Your task to perform on an android device: turn on notifications settings in the gmail app Image 0: 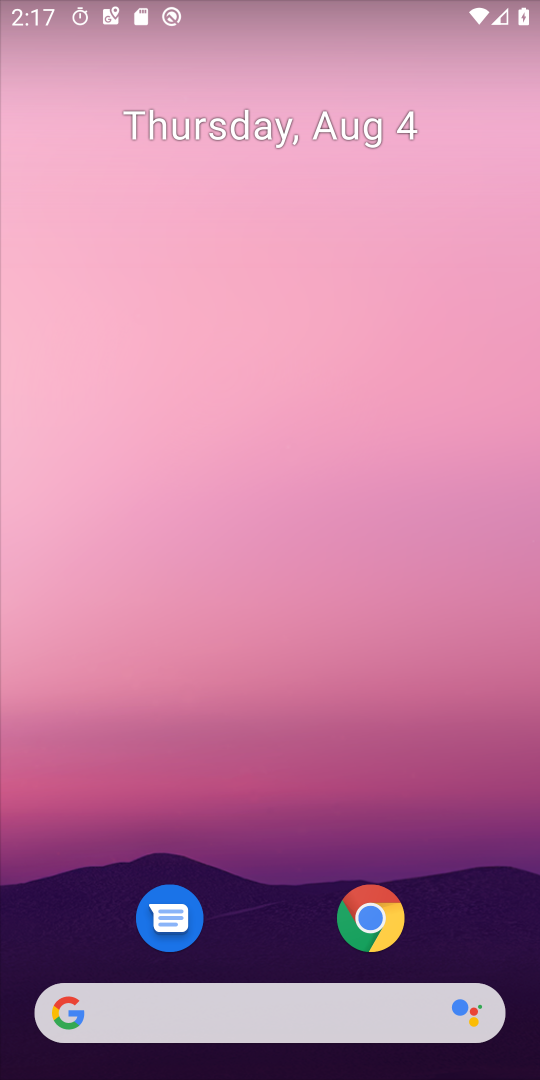
Step 0: drag from (315, 624) to (315, 196)
Your task to perform on an android device: turn on notifications settings in the gmail app Image 1: 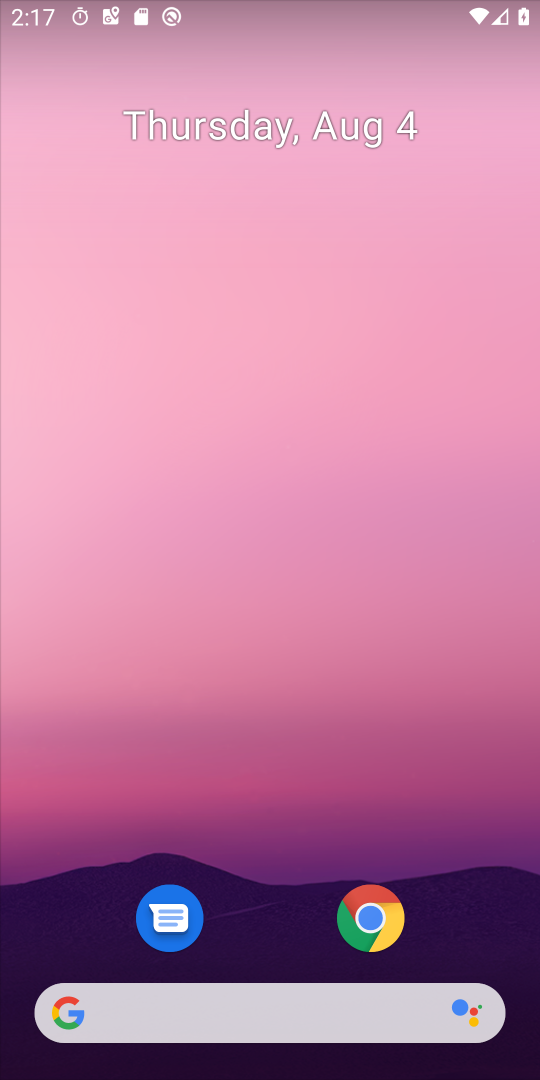
Step 1: drag from (282, 909) to (319, 301)
Your task to perform on an android device: turn on notifications settings in the gmail app Image 2: 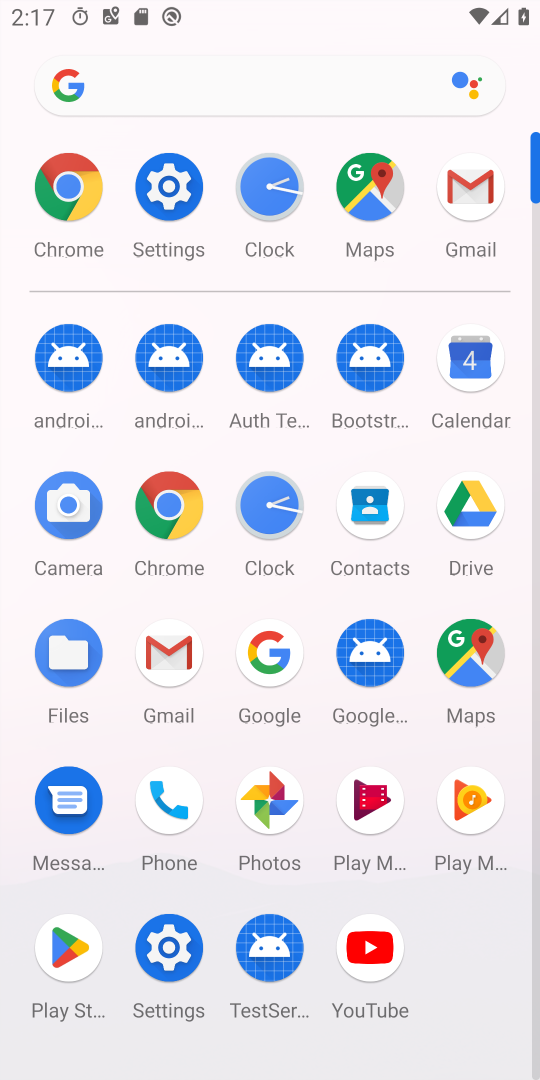
Step 2: click (442, 187)
Your task to perform on an android device: turn on notifications settings in the gmail app Image 3: 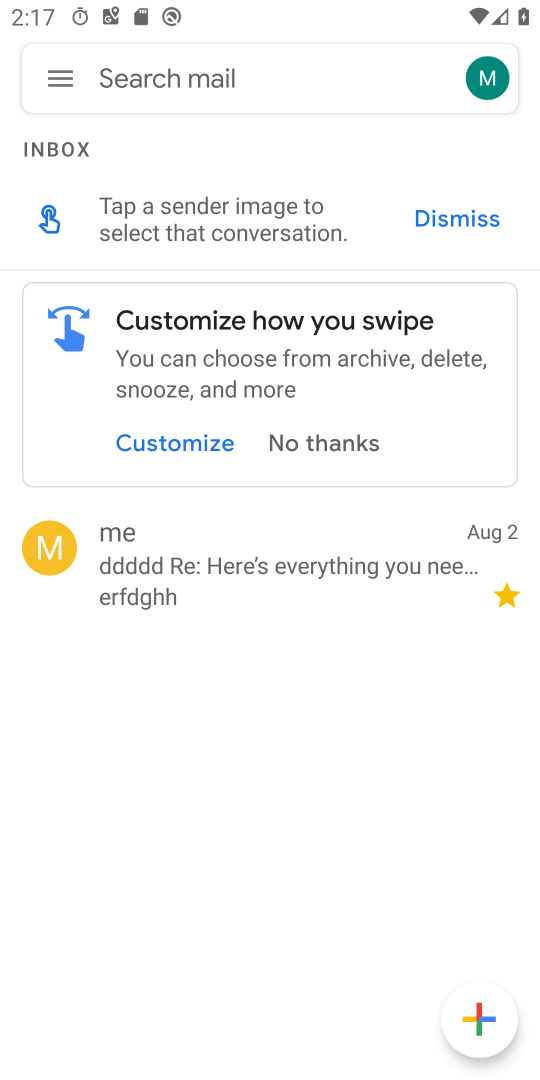
Step 3: click (76, 70)
Your task to perform on an android device: turn on notifications settings in the gmail app Image 4: 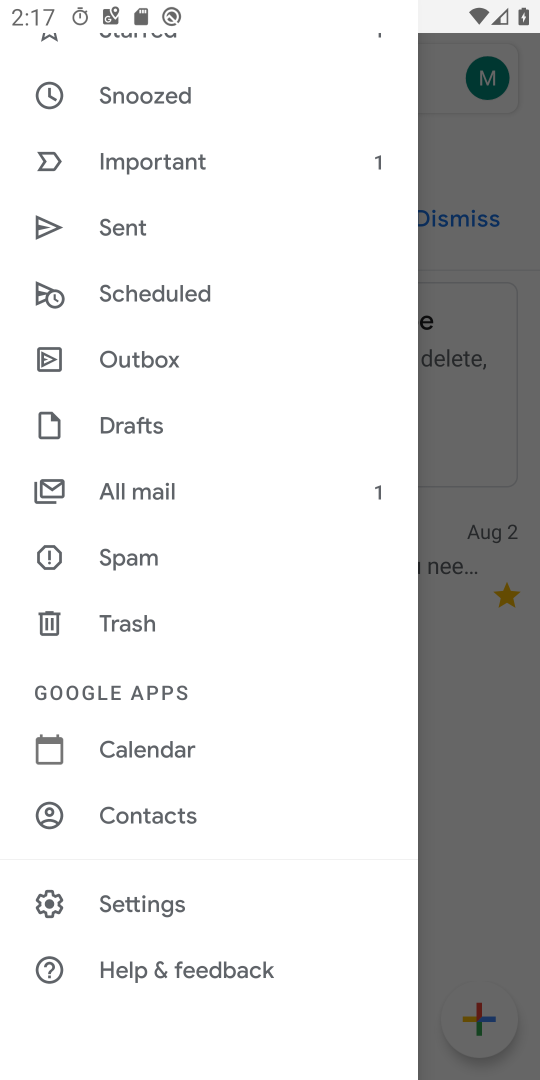
Step 4: click (154, 885)
Your task to perform on an android device: turn on notifications settings in the gmail app Image 5: 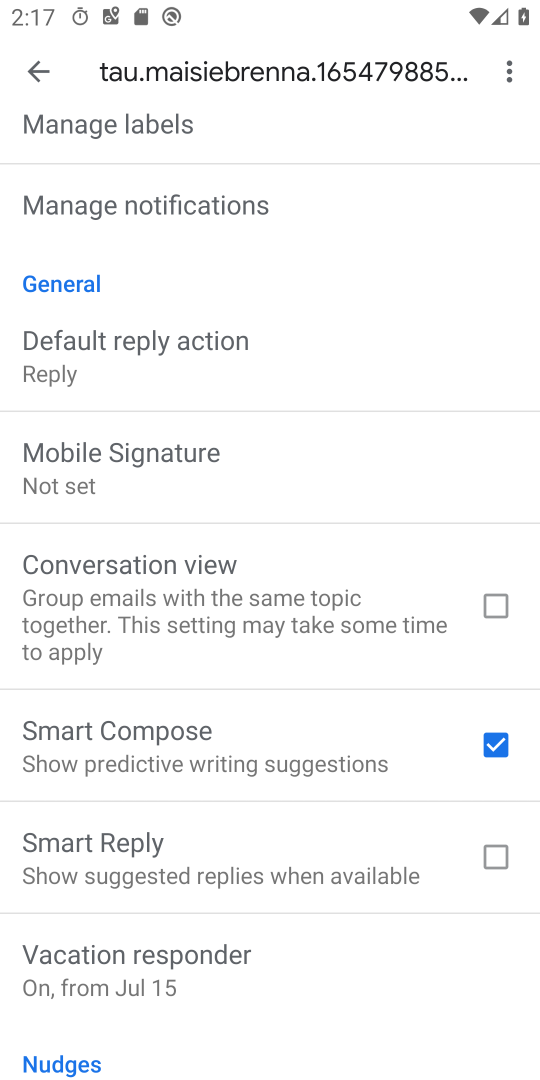
Step 5: click (202, 201)
Your task to perform on an android device: turn on notifications settings in the gmail app Image 6: 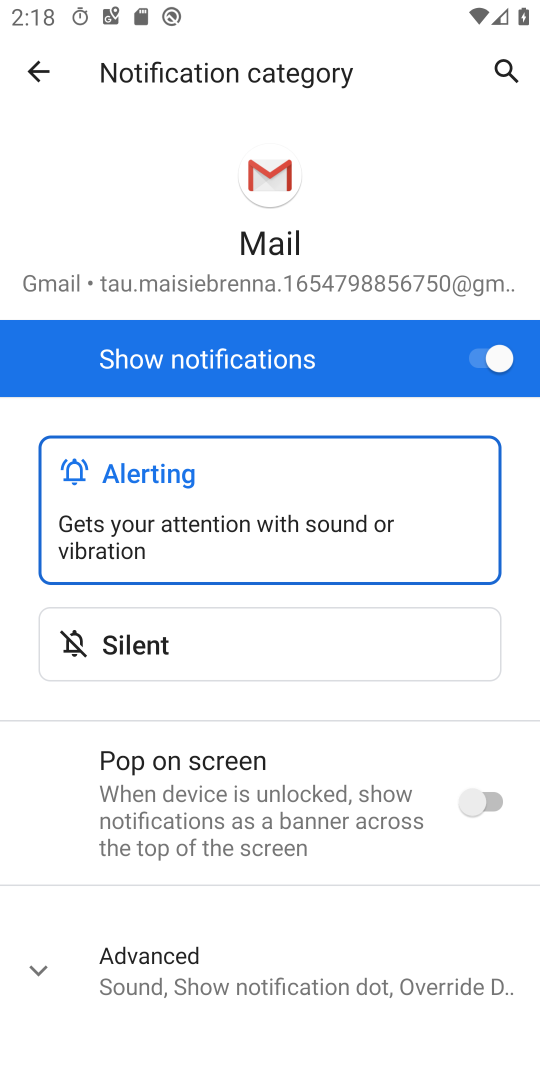
Step 6: task complete